Your task to perform on an android device: Open accessibility settings Image 0: 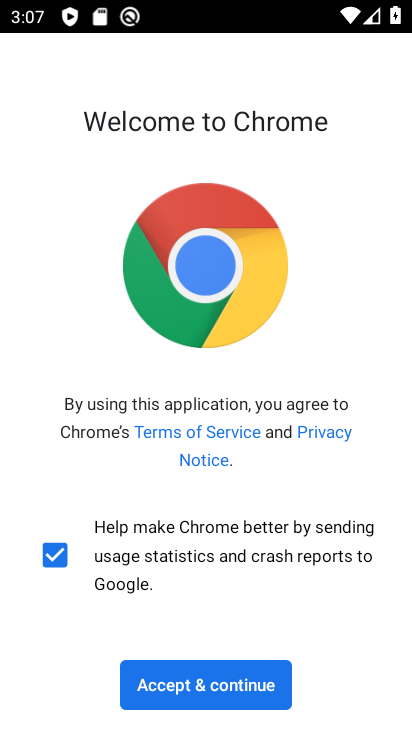
Step 0: press home button
Your task to perform on an android device: Open accessibility settings Image 1: 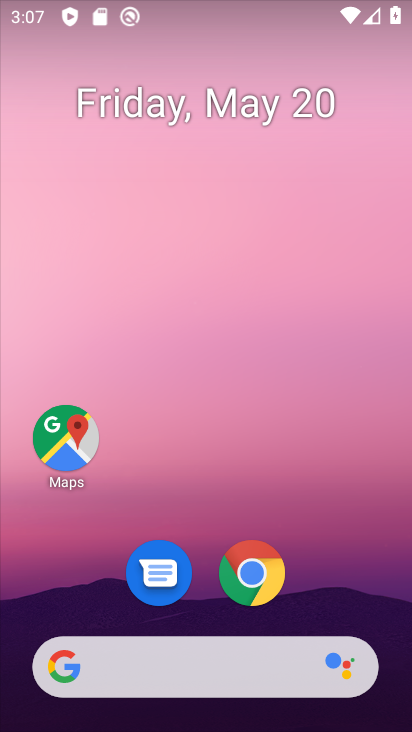
Step 1: drag from (228, 629) to (401, 335)
Your task to perform on an android device: Open accessibility settings Image 2: 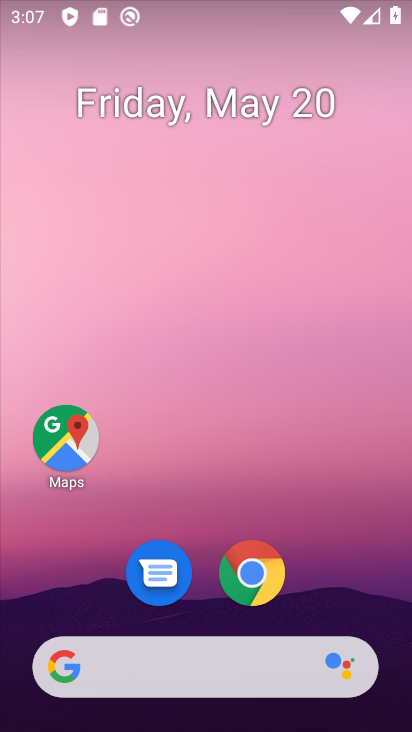
Step 2: drag from (207, 610) to (233, 25)
Your task to perform on an android device: Open accessibility settings Image 3: 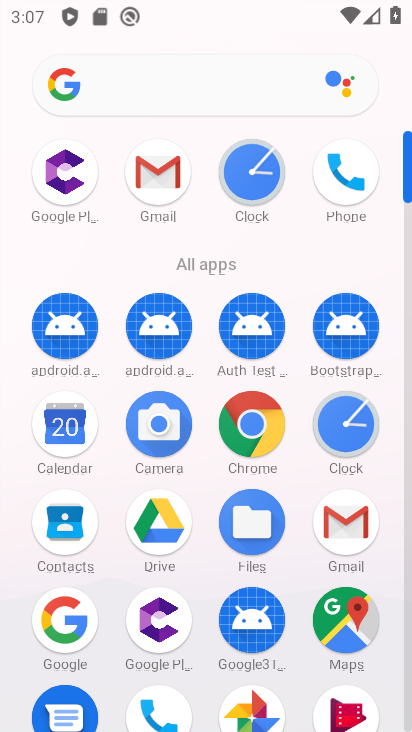
Step 3: drag from (218, 516) to (248, 28)
Your task to perform on an android device: Open accessibility settings Image 4: 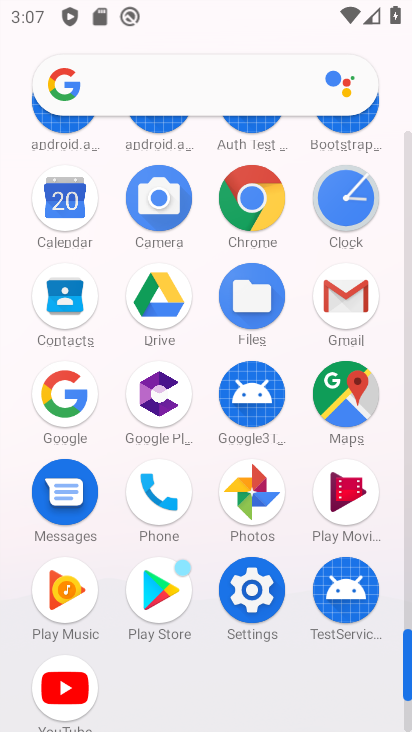
Step 4: click (254, 586)
Your task to perform on an android device: Open accessibility settings Image 5: 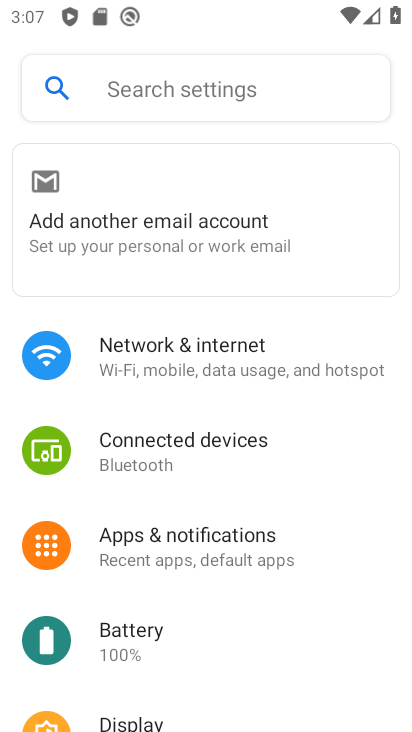
Step 5: drag from (292, 649) to (223, 165)
Your task to perform on an android device: Open accessibility settings Image 6: 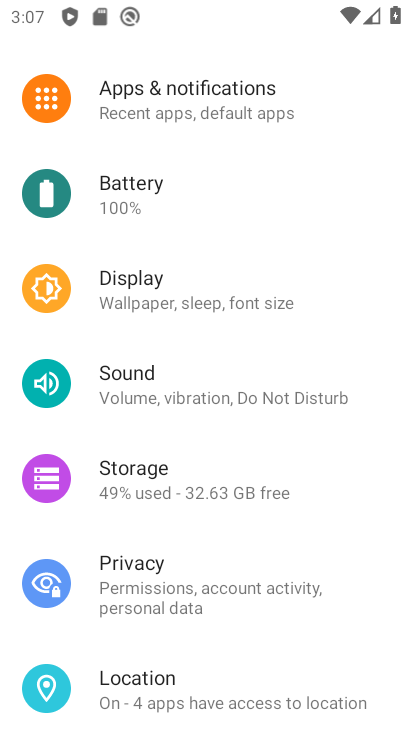
Step 6: drag from (187, 669) to (117, 129)
Your task to perform on an android device: Open accessibility settings Image 7: 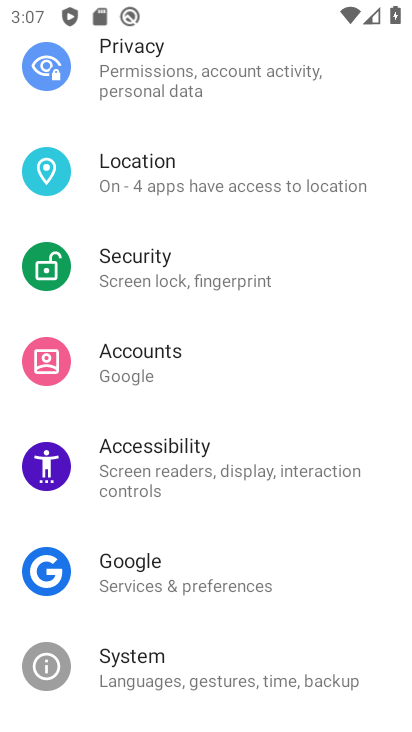
Step 7: click (157, 480)
Your task to perform on an android device: Open accessibility settings Image 8: 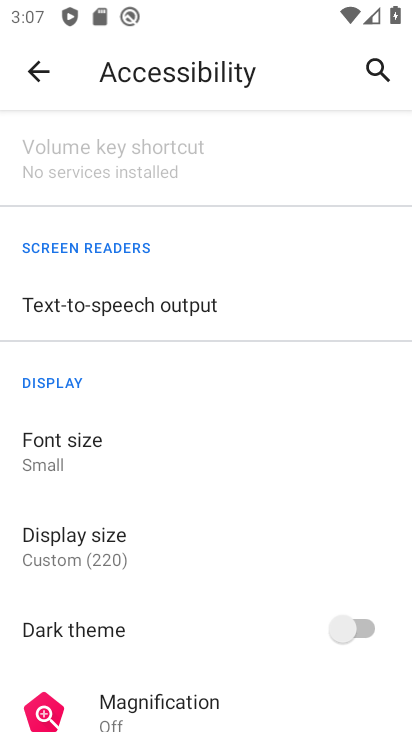
Step 8: task complete